Your task to perform on an android device: Install the Yelp app Image 0: 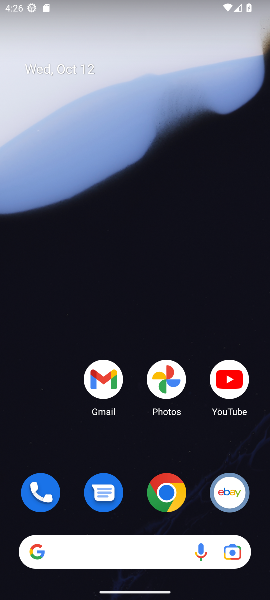
Step 0: drag from (194, 464) to (205, 89)
Your task to perform on an android device: Install the Yelp app Image 1: 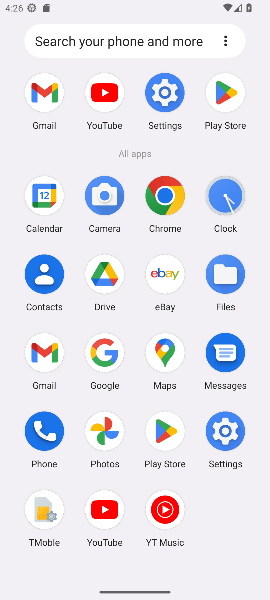
Step 1: click (227, 96)
Your task to perform on an android device: Install the Yelp app Image 2: 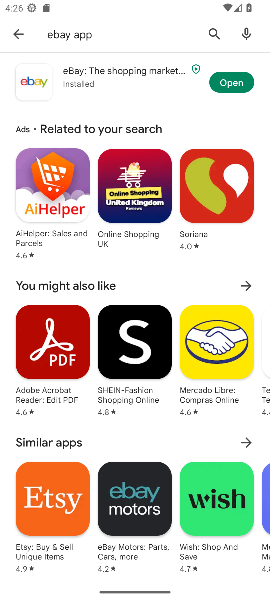
Step 2: click (213, 34)
Your task to perform on an android device: Install the Yelp app Image 3: 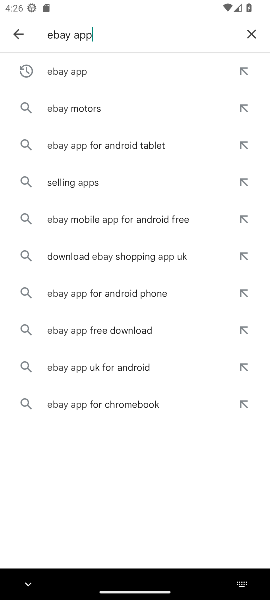
Step 3: click (251, 30)
Your task to perform on an android device: Install the Yelp app Image 4: 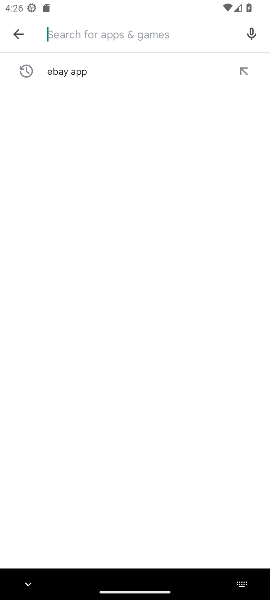
Step 4: click (99, 39)
Your task to perform on an android device: Install the Yelp app Image 5: 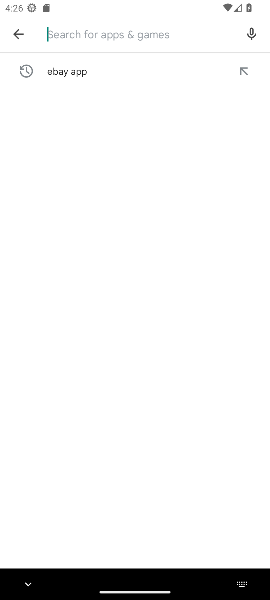
Step 5: click (95, 42)
Your task to perform on an android device: Install the Yelp app Image 6: 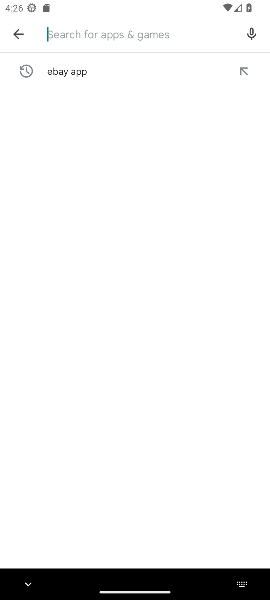
Step 6: type "yelp app"
Your task to perform on an android device: Install the Yelp app Image 7: 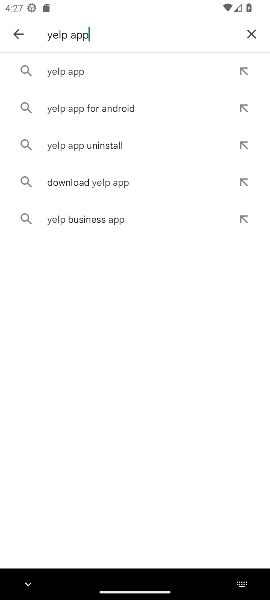
Step 7: click (70, 74)
Your task to perform on an android device: Install the Yelp app Image 8: 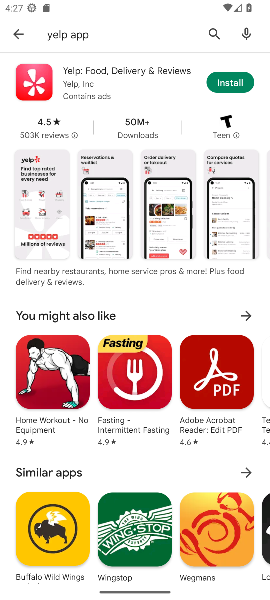
Step 8: click (226, 76)
Your task to perform on an android device: Install the Yelp app Image 9: 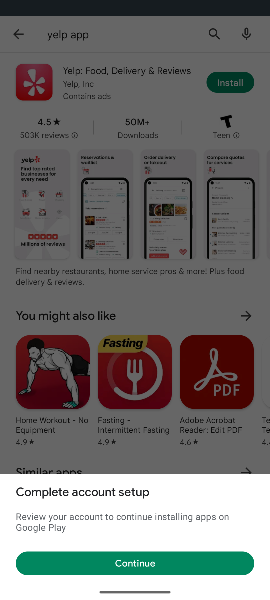
Step 9: click (89, 571)
Your task to perform on an android device: Install the Yelp app Image 10: 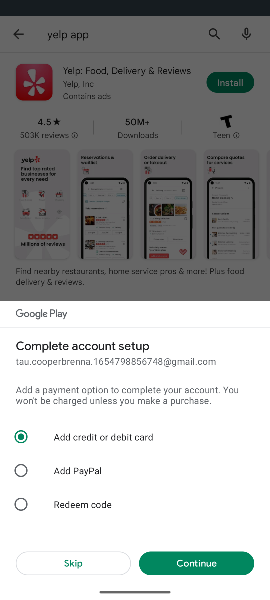
Step 10: click (69, 567)
Your task to perform on an android device: Install the Yelp app Image 11: 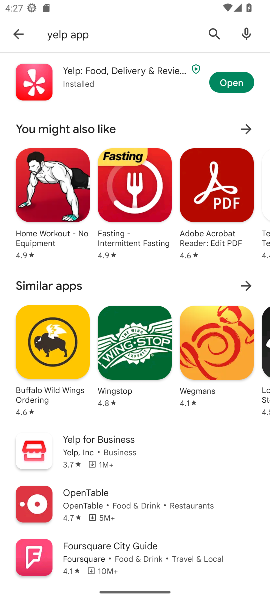
Step 11: task complete